Your task to perform on an android device: turn pop-ups off in chrome Image 0: 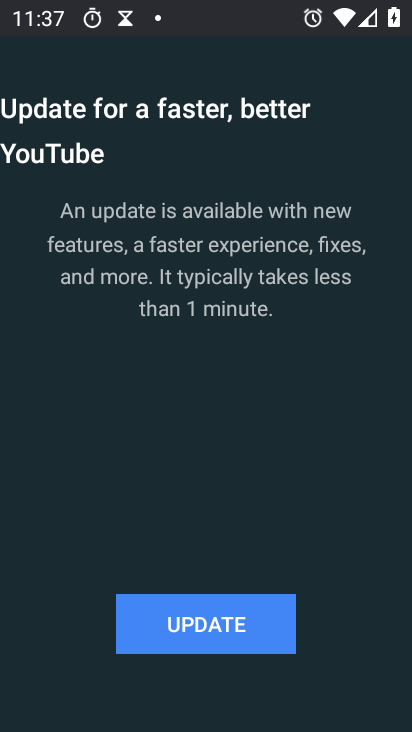
Step 0: press back button
Your task to perform on an android device: turn pop-ups off in chrome Image 1: 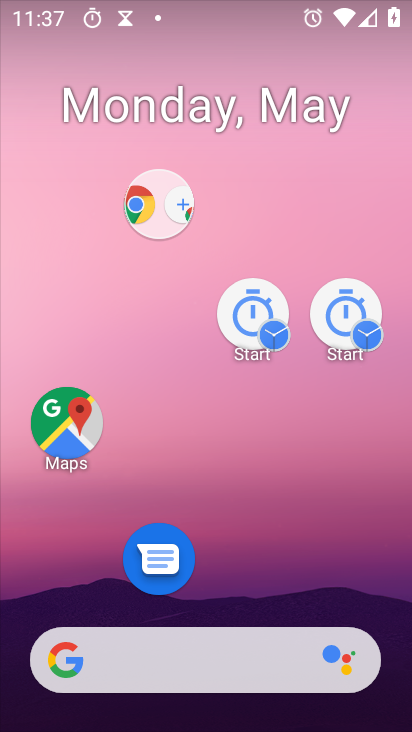
Step 1: drag from (254, 696) to (128, 68)
Your task to perform on an android device: turn pop-ups off in chrome Image 2: 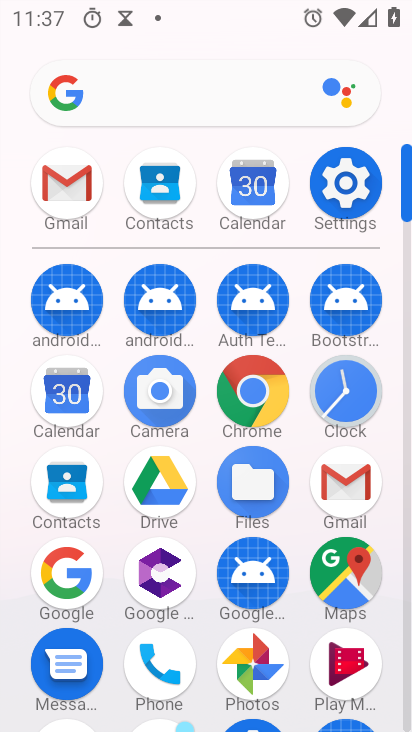
Step 2: click (244, 393)
Your task to perform on an android device: turn pop-ups off in chrome Image 3: 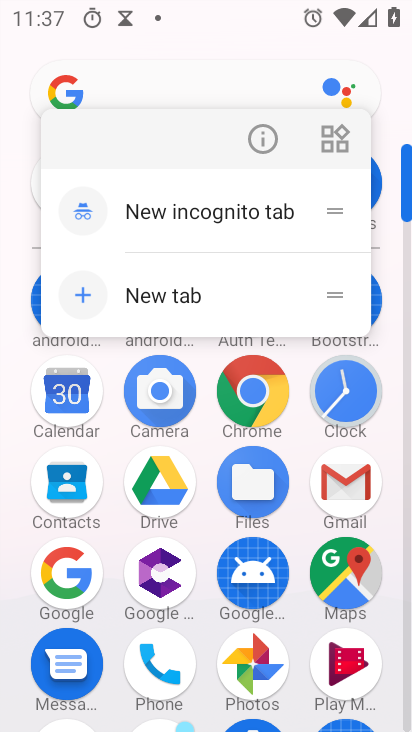
Step 3: click (249, 404)
Your task to perform on an android device: turn pop-ups off in chrome Image 4: 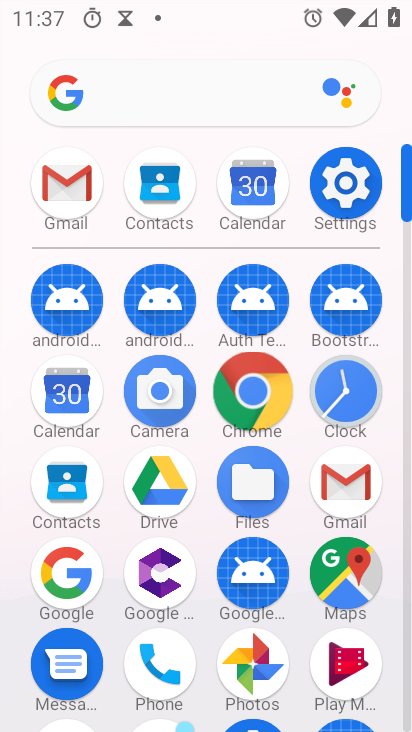
Step 4: click (249, 404)
Your task to perform on an android device: turn pop-ups off in chrome Image 5: 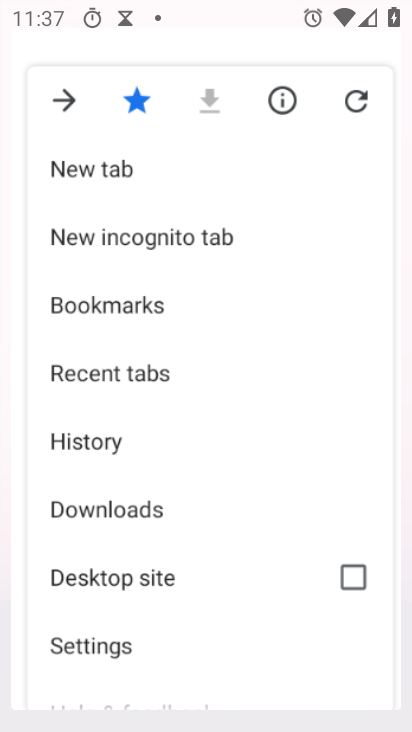
Step 5: click (249, 404)
Your task to perform on an android device: turn pop-ups off in chrome Image 6: 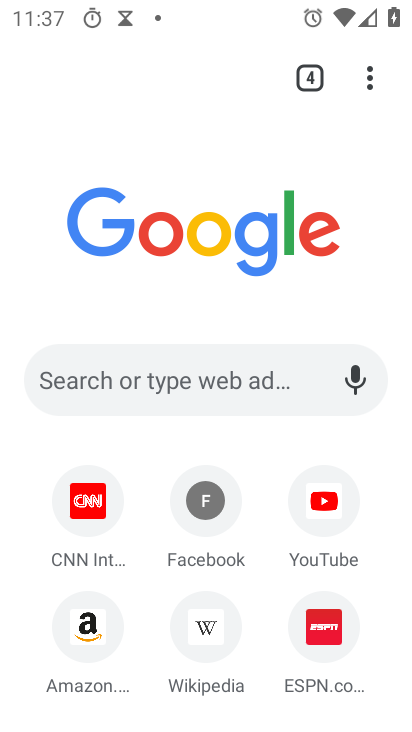
Step 6: click (371, 82)
Your task to perform on an android device: turn pop-ups off in chrome Image 7: 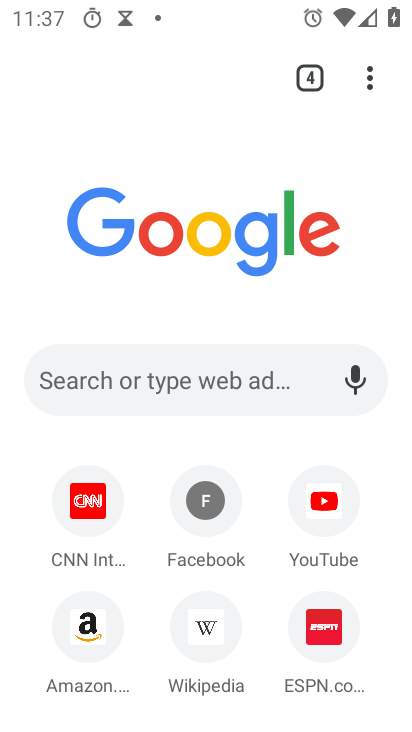
Step 7: click (372, 76)
Your task to perform on an android device: turn pop-ups off in chrome Image 8: 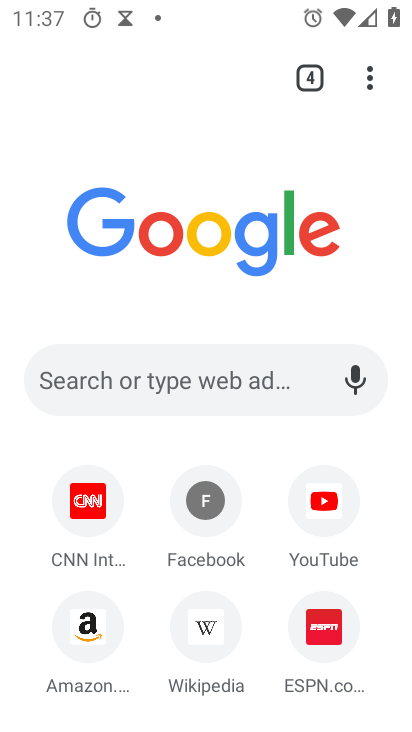
Step 8: click (367, 85)
Your task to perform on an android device: turn pop-ups off in chrome Image 9: 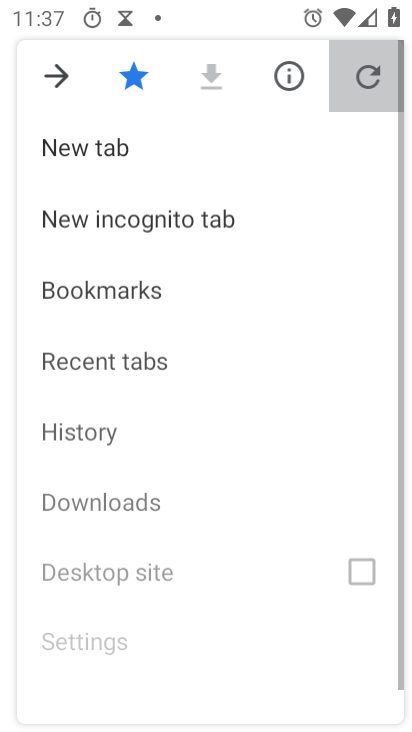
Step 9: drag from (367, 85) to (78, 616)
Your task to perform on an android device: turn pop-ups off in chrome Image 10: 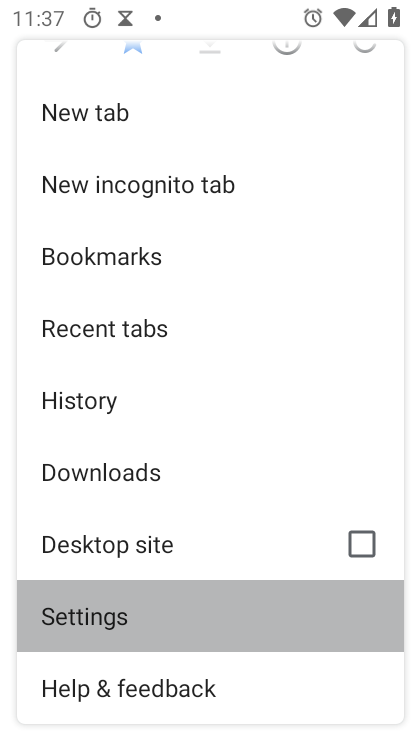
Step 10: click (76, 611)
Your task to perform on an android device: turn pop-ups off in chrome Image 11: 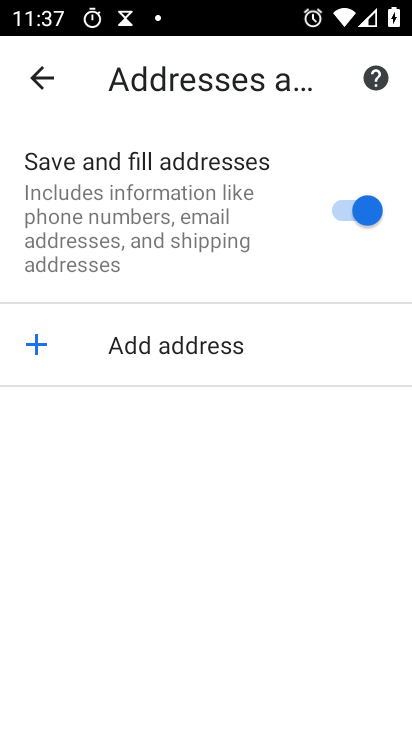
Step 11: click (39, 77)
Your task to perform on an android device: turn pop-ups off in chrome Image 12: 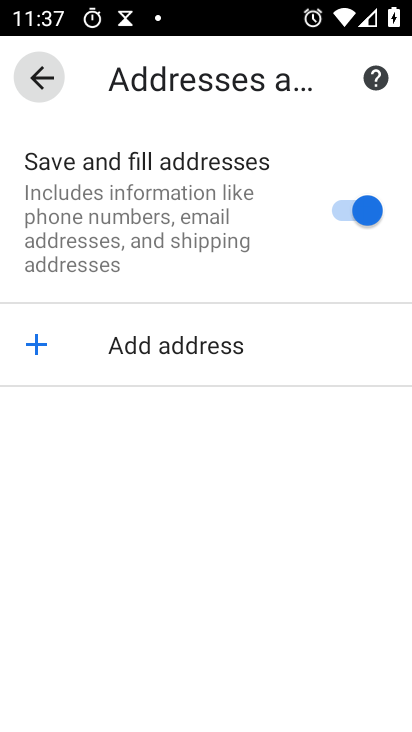
Step 12: click (37, 84)
Your task to perform on an android device: turn pop-ups off in chrome Image 13: 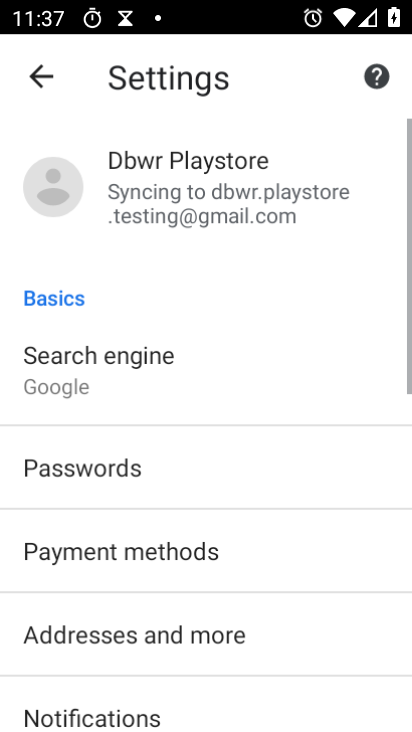
Step 13: click (37, 84)
Your task to perform on an android device: turn pop-ups off in chrome Image 14: 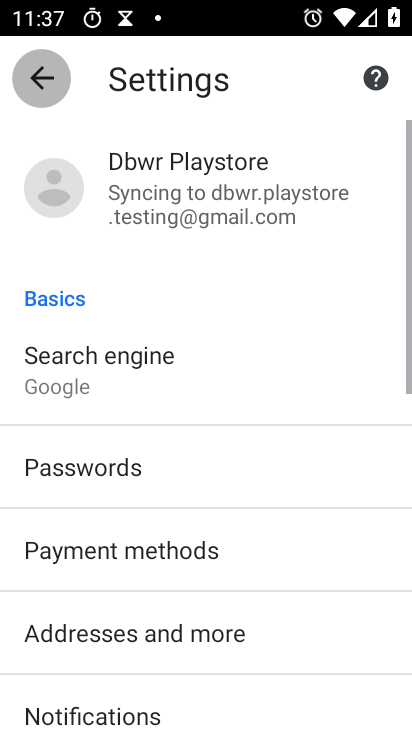
Step 14: click (40, 81)
Your task to perform on an android device: turn pop-ups off in chrome Image 15: 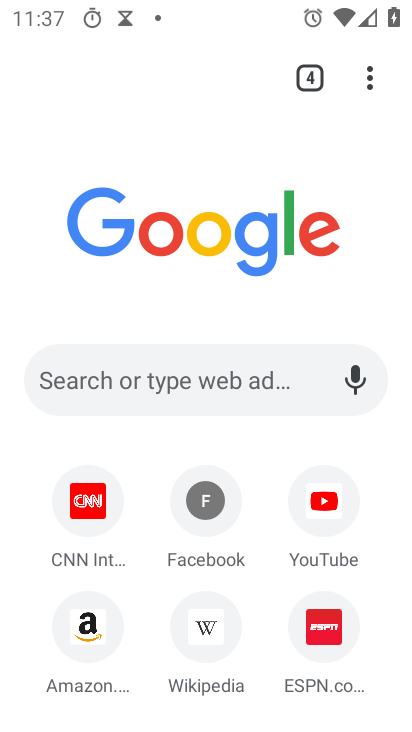
Step 15: click (368, 80)
Your task to perform on an android device: turn pop-ups off in chrome Image 16: 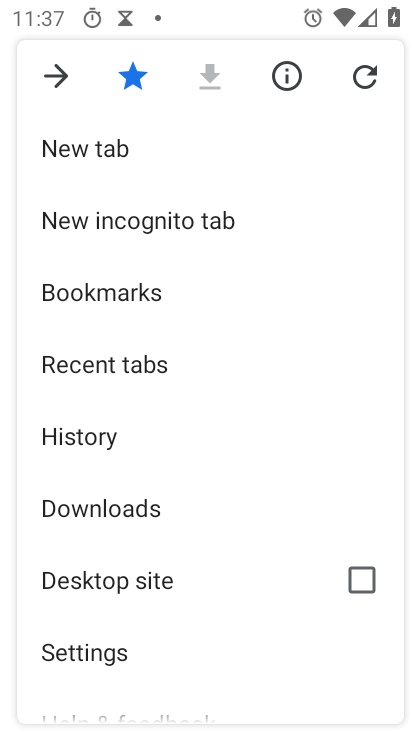
Step 16: click (91, 653)
Your task to perform on an android device: turn pop-ups off in chrome Image 17: 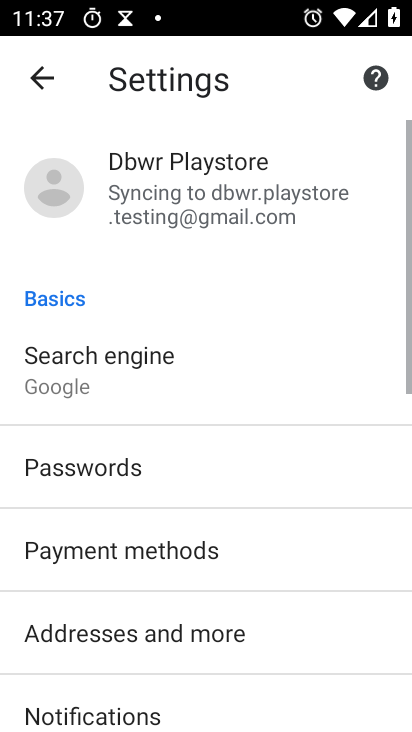
Step 17: click (72, 660)
Your task to perform on an android device: turn pop-ups off in chrome Image 18: 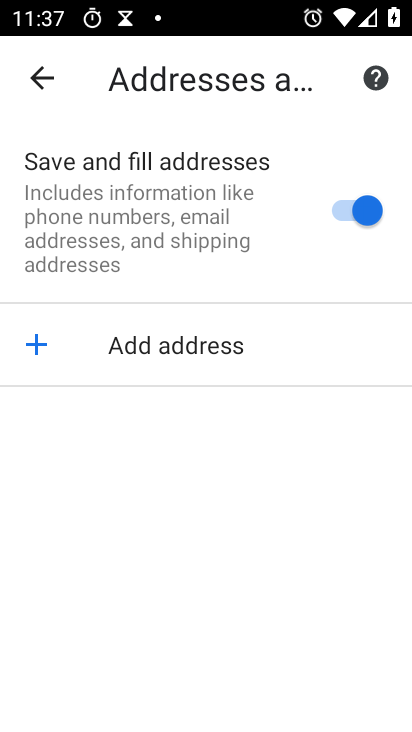
Step 18: click (36, 74)
Your task to perform on an android device: turn pop-ups off in chrome Image 19: 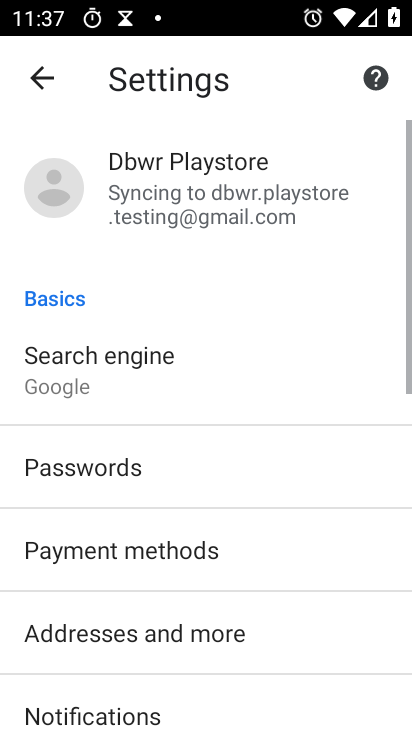
Step 19: drag from (207, 181) to (217, 231)
Your task to perform on an android device: turn pop-ups off in chrome Image 20: 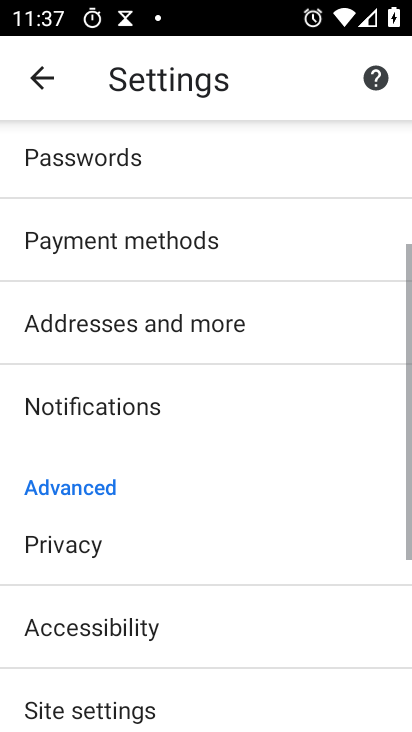
Step 20: drag from (212, 509) to (209, 238)
Your task to perform on an android device: turn pop-ups off in chrome Image 21: 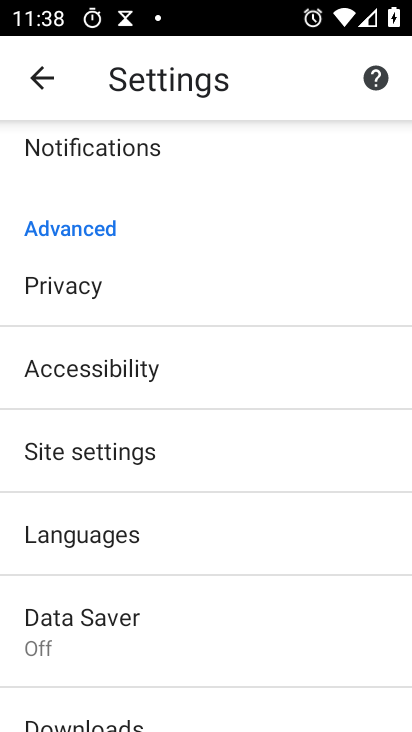
Step 21: click (79, 461)
Your task to perform on an android device: turn pop-ups off in chrome Image 22: 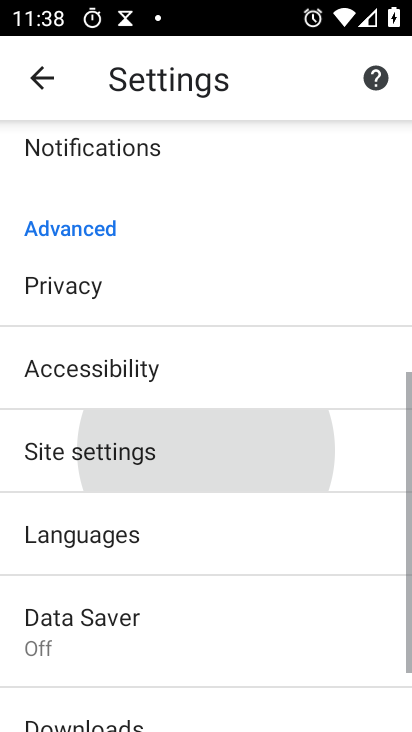
Step 22: click (79, 461)
Your task to perform on an android device: turn pop-ups off in chrome Image 23: 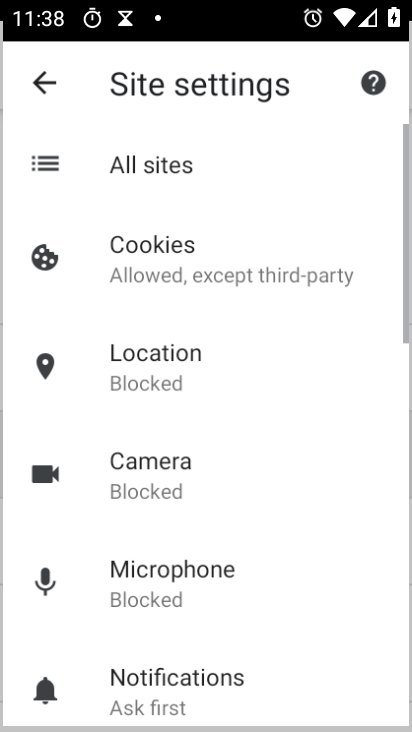
Step 23: click (71, 453)
Your task to perform on an android device: turn pop-ups off in chrome Image 24: 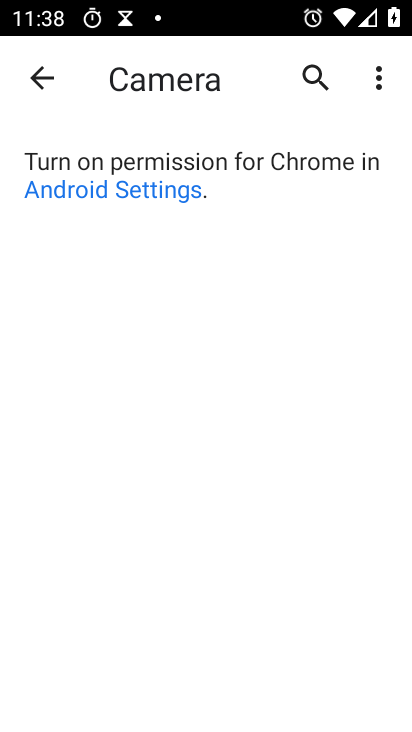
Step 24: drag from (148, 563) to (129, 145)
Your task to perform on an android device: turn pop-ups off in chrome Image 25: 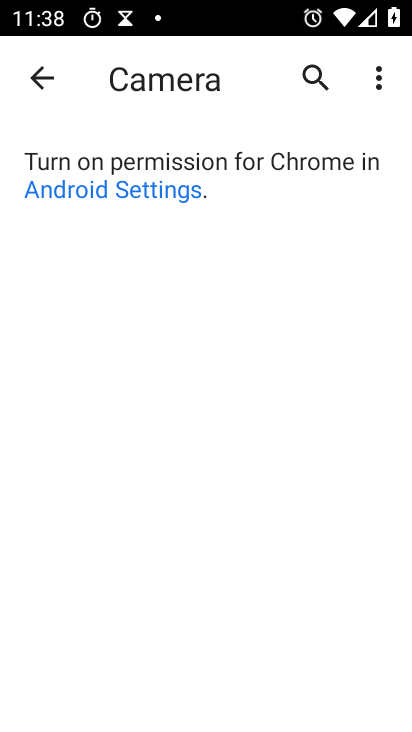
Step 25: drag from (171, 469) to (189, 61)
Your task to perform on an android device: turn pop-ups off in chrome Image 26: 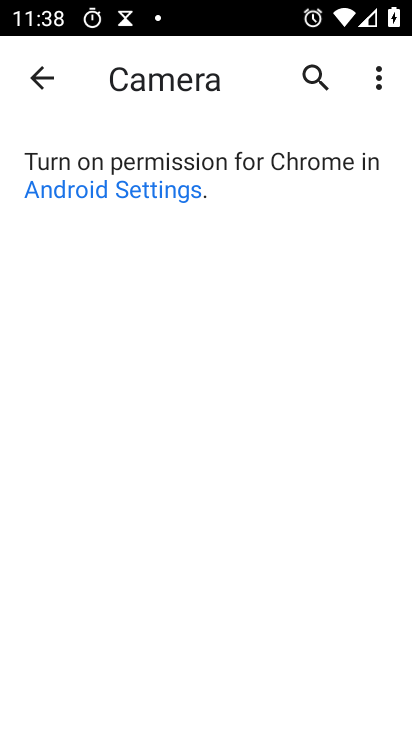
Step 26: click (48, 72)
Your task to perform on an android device: turn pop-ups off in chrome Image 27: 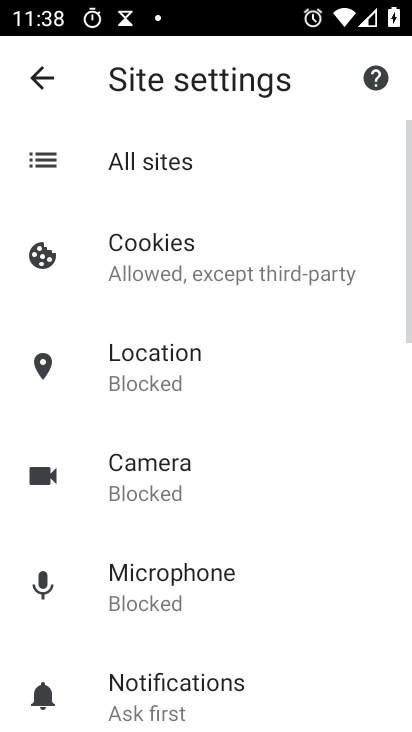
Step 27: drag from (192, 583) to (193, 254)
Your task to perform on an android device: turn pop-ups off in chrome Image 28: 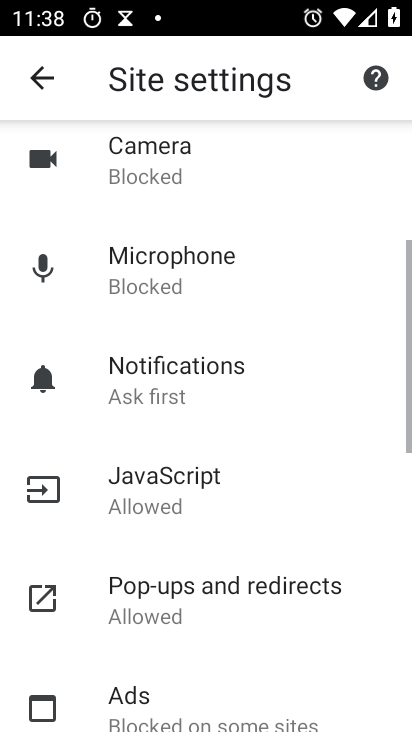
Step 28: drag from (193, 511) to (169, 164)
Your task to perform on an android device: turn pop-ups off in chrome Image 29: 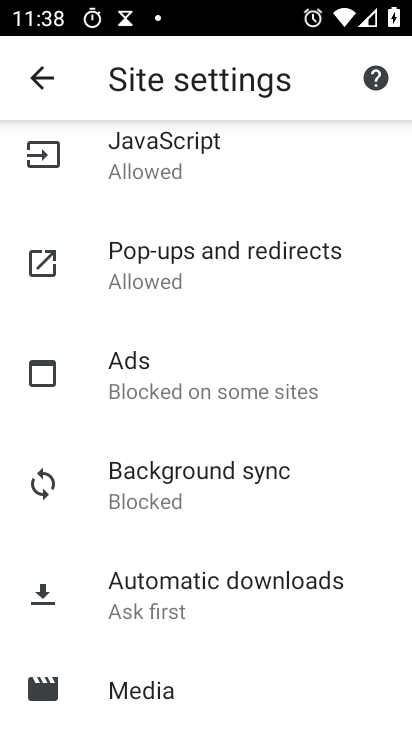
Step 29: click (151, 253)
Your task to perform on an android device: turn pop-ups off in chrome Image 30: 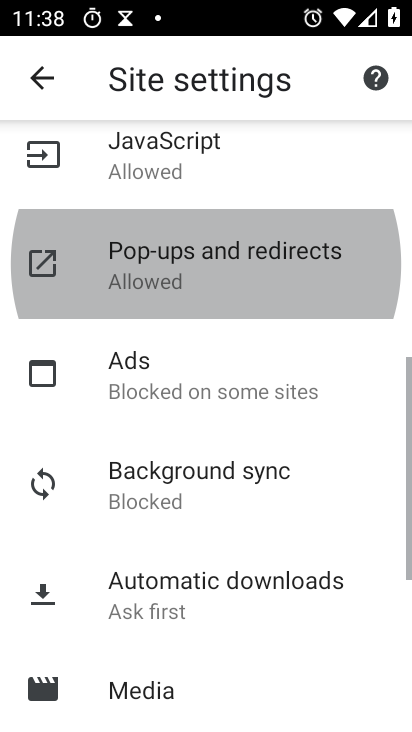
Step 30: click (151, 253)
Your task to perform on an android device: turn pop-ups off in chrome Image 31: 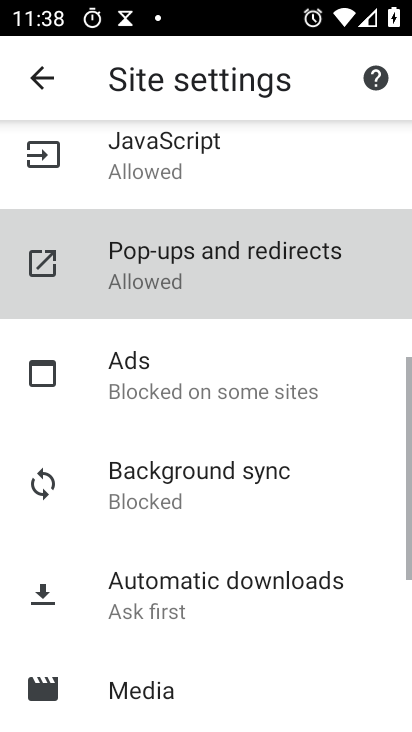
Step 31: click (155, 255)
Your task to perform on an android device: turn pop-ups off in chrome Image 32: 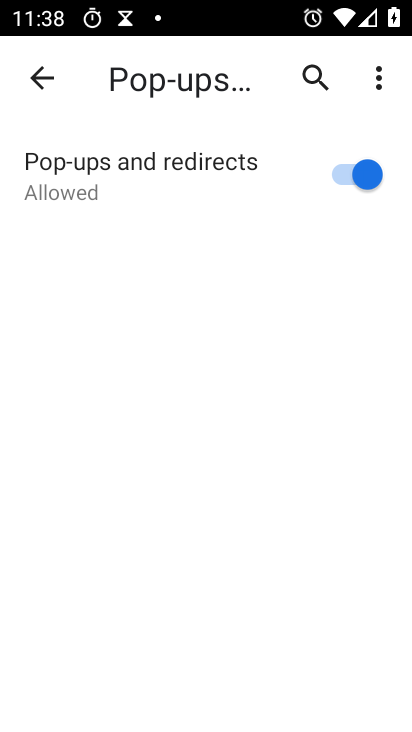
Step 32: click (356, 174)
Your task to perform on an android device: turn pop-ups off in chrome Image 33: 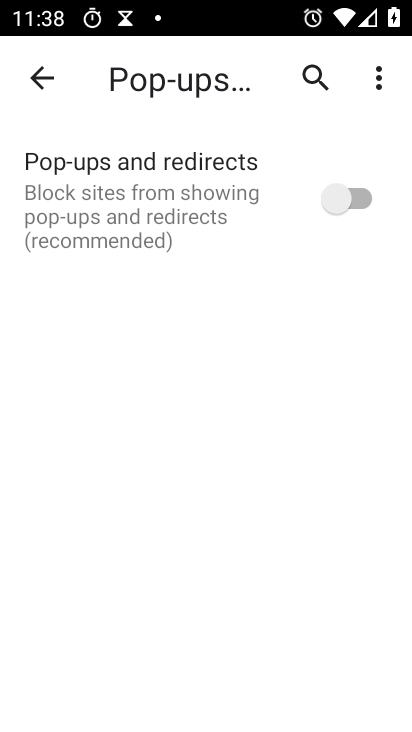
Step 33: task complete